Your task to perform on an android device: toggle javascript in the chrome app Image 0: 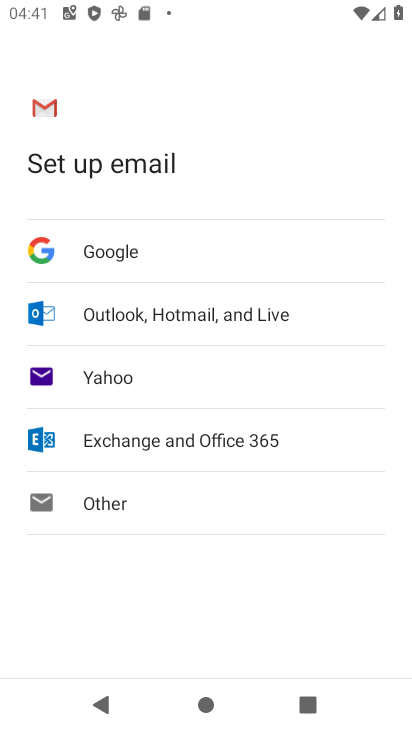
Step 0: task complete